Your task to perform on an android device: Do I have any events tomorrow? Image 0: 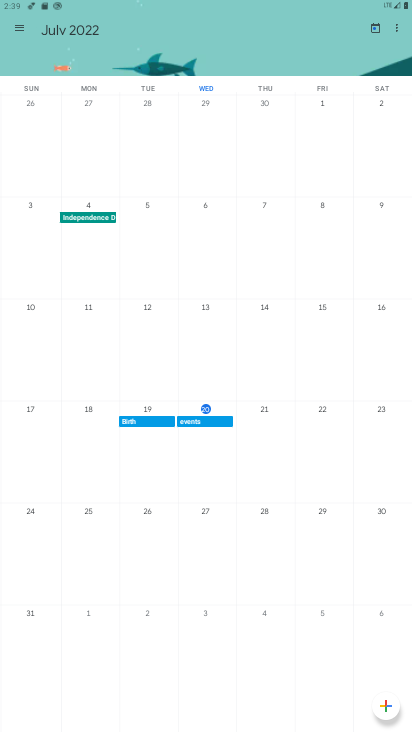
Step 0: press home button
Your task to perform on an android device: Do I have any events tomorrow? Image 1: 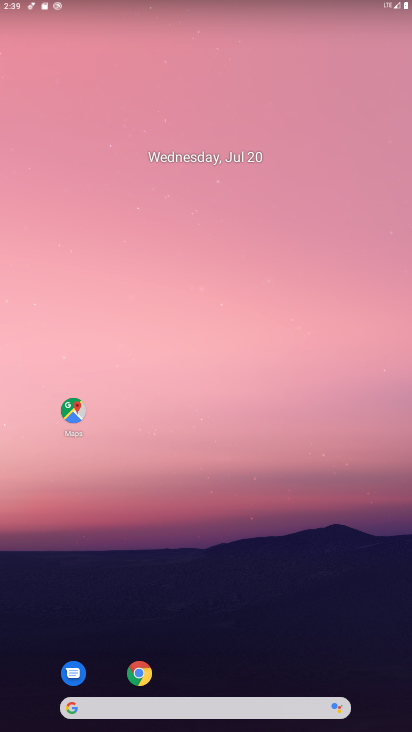
Step 1: drag from (212, 656) to (243, 11)
Your task to perform on an android device: Do I have any events tomorrow? Image 2: 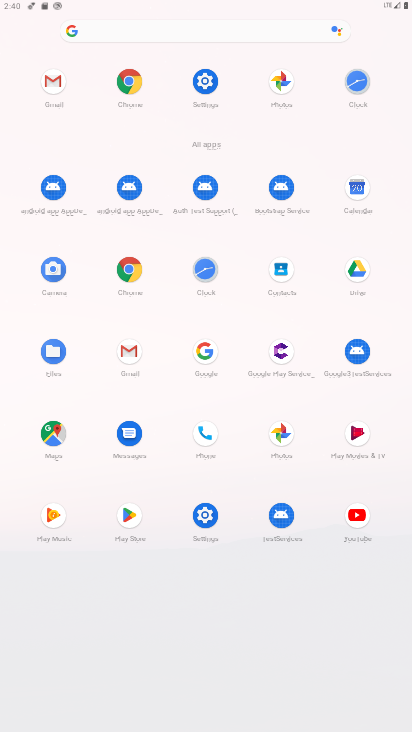
Step 2: click (364, 191)
Your task to perform on an android device: Do I have any events tomorrow? Image 3: 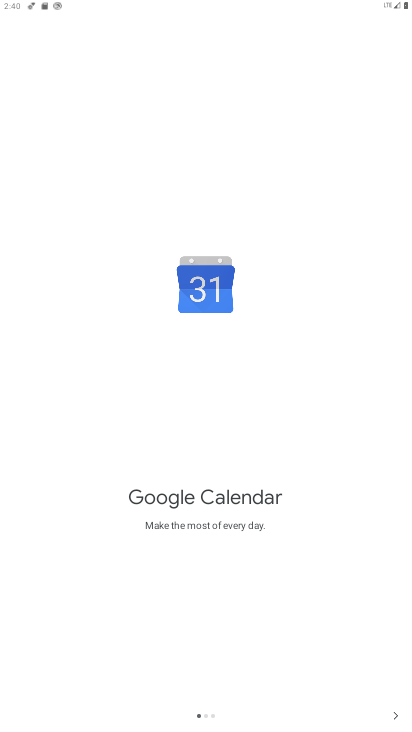
Step 3: click (390, 716)
Your task to perform on an android device: Do I have any events tomorrow? Image 4: 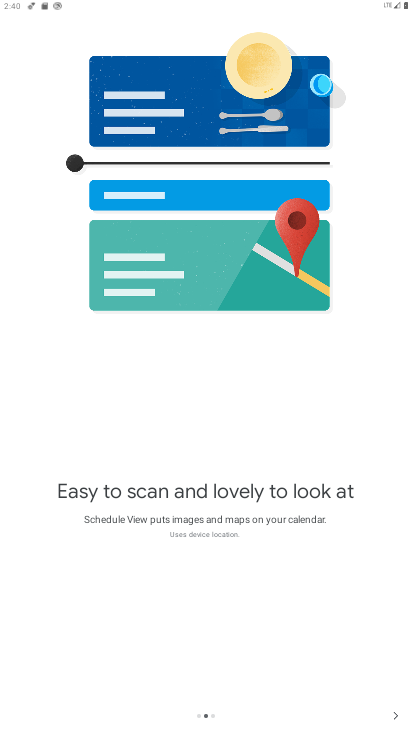
Step 4: click (390, 716)
Your task to perform on an android device: Do I have any events tomorrow? Image 5: 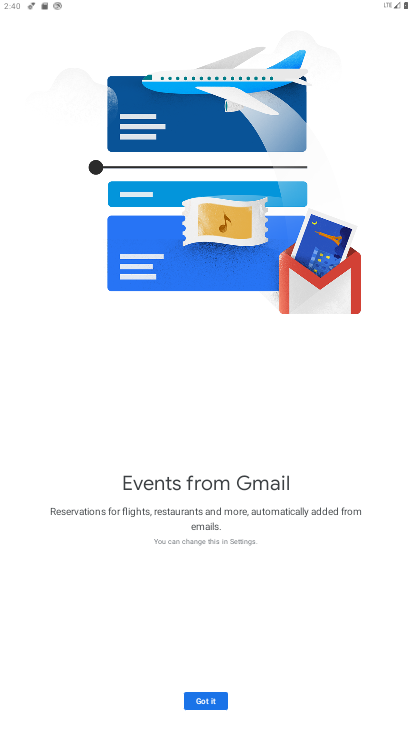
Step 5: click (194, 696)
Your task to perform on an android device: Do I have any events tomorrow? Image 6: 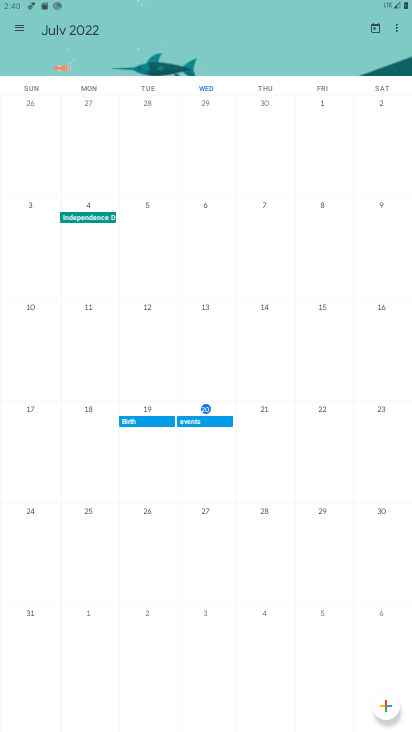
Step 6: click (14, 24)
Your task to perform on an android device: Do I have any events tomorrow? Image 7: 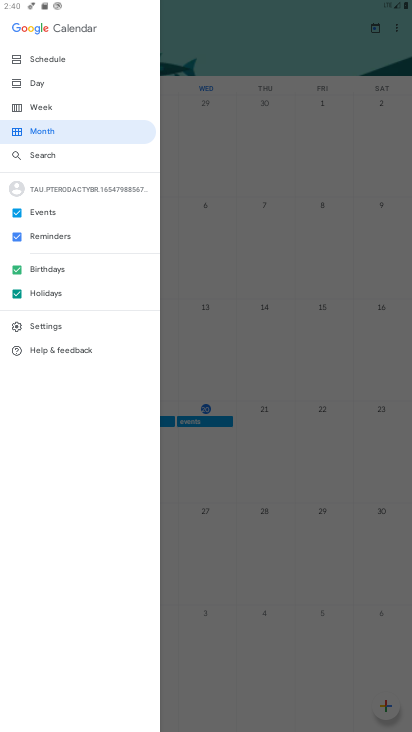
Step 7: click (60, 234)
Your task to perform on an android device: Do I have any events tomorrow? Image 8: 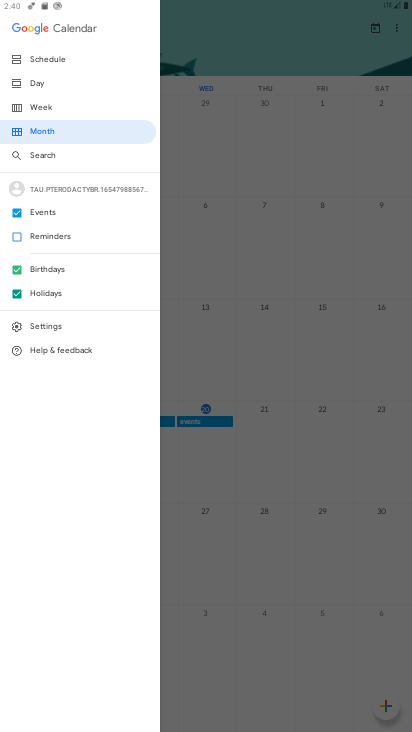
Step 8: click (54, 273)
Your task to perform on an android device: Do I have any events tomorrow? Image 9: 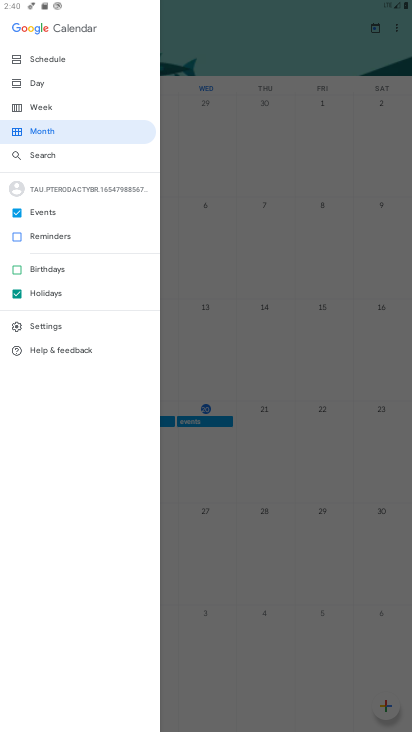
Step 9: click (51, 286)
Your task to perform on an android device: Do I have any events tomorrow? Image 10: 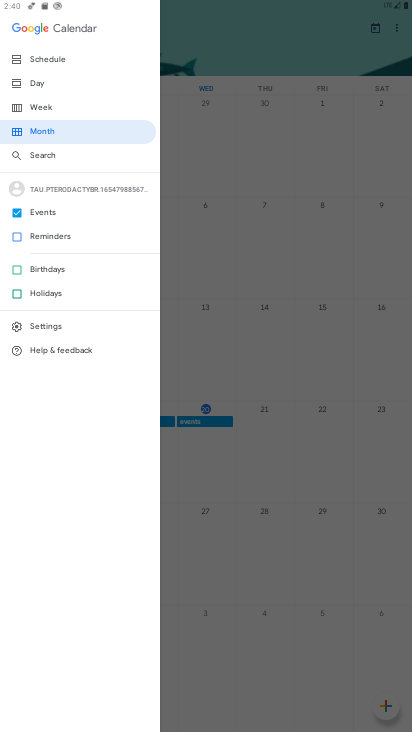
Step 10: click (46, 88)
Your task to perform on an android device: Do I have any events tomorrow? Image 11: 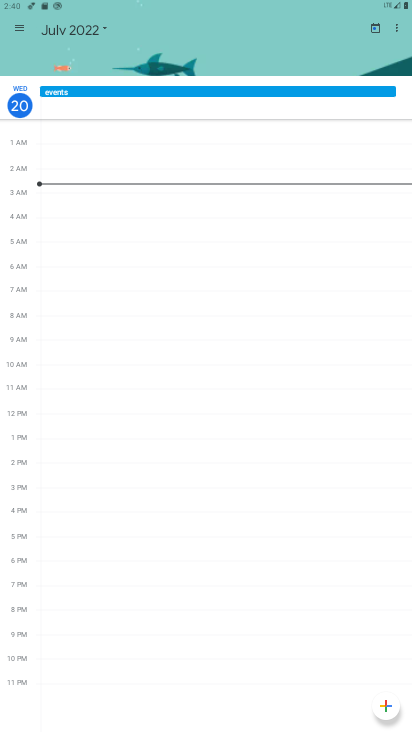
Step 11: click (72, 26)
Your task to perform on an android device: Do I have any events tomorrow? Image 12: 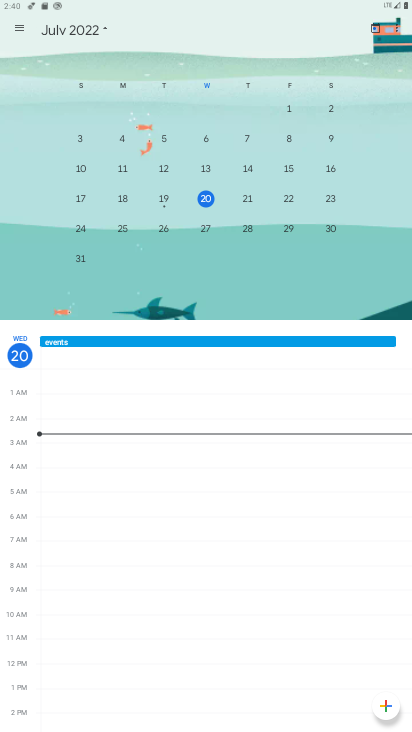
Step 12: click (246, 197)
Your task to perform on an android device: Do I have any events tomorrow? Image 13: 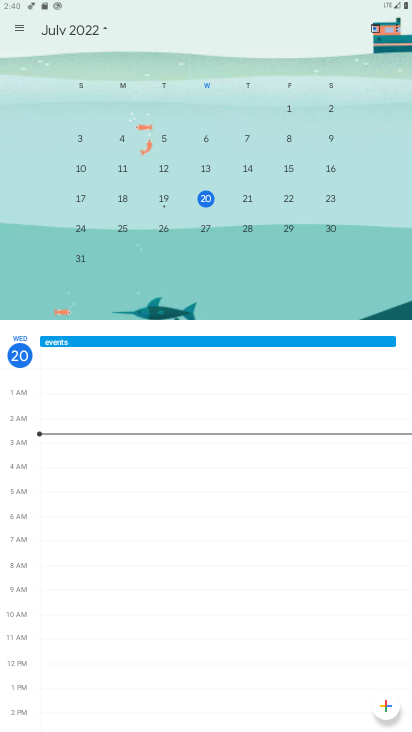
Step 13: click (246, 198)
Your task to perform on an android device: Do I have any events tomorrow? Image 14: 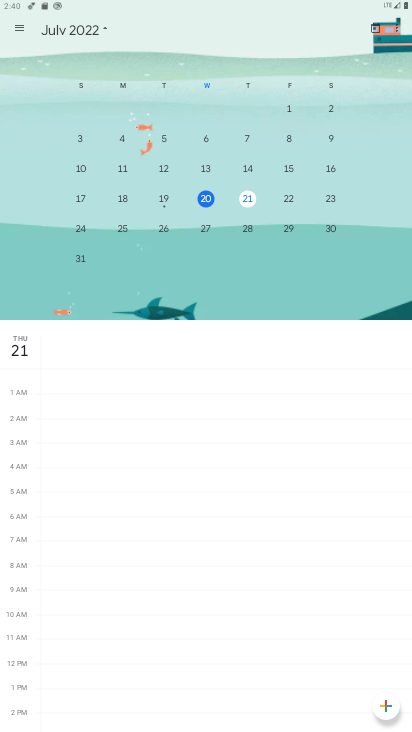
Step 14: task complete